Your task to perform on an android device: Go to ESPN.com Image 0: 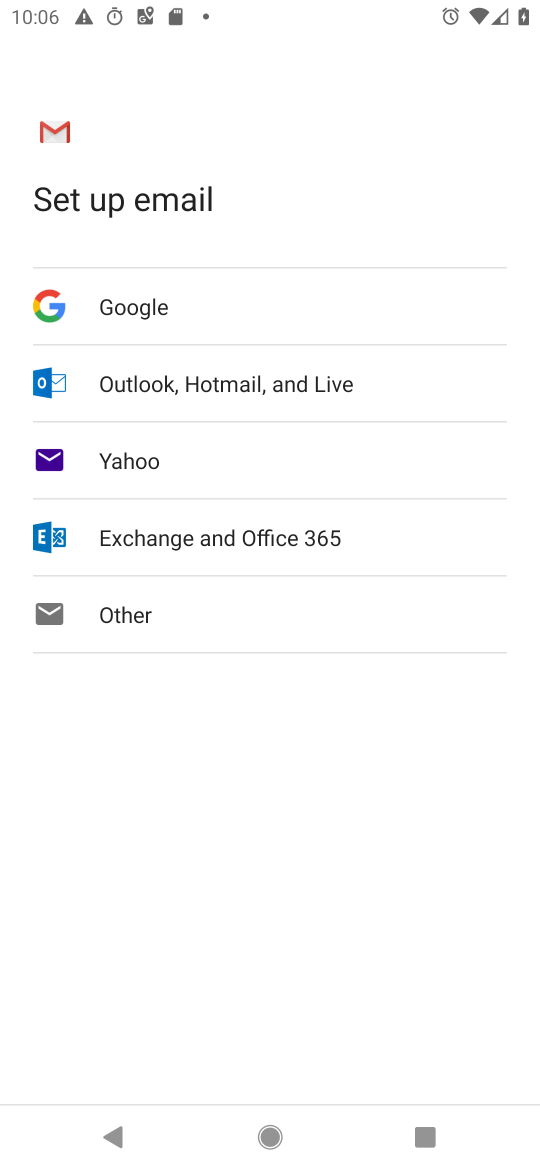
Step 0: press home button
Your task to perform on an android device: Go to ESPN.com Image 1: 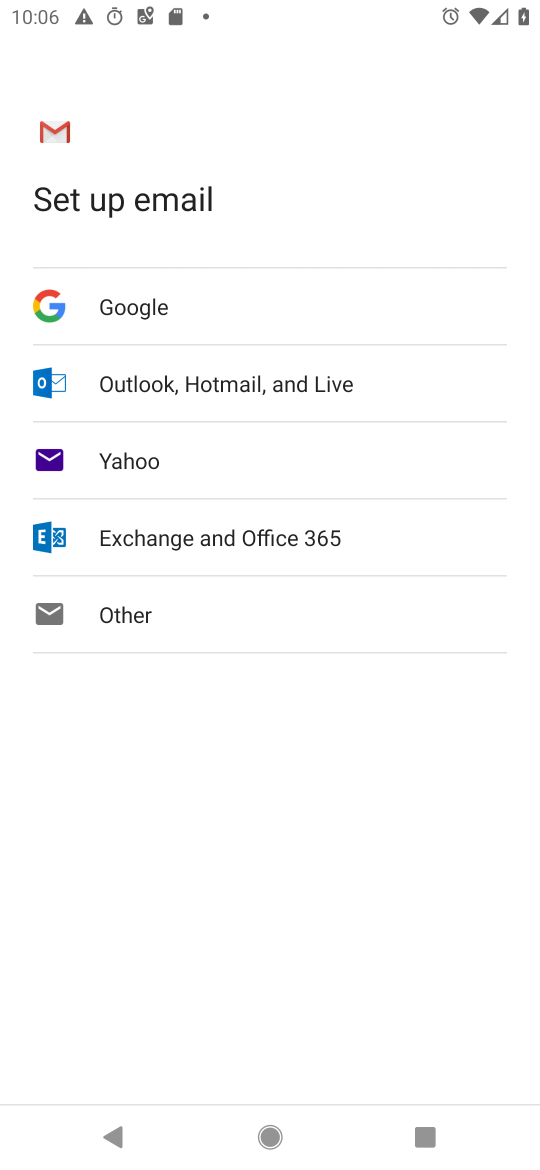
Step 1: press home button
Your task to perform on an android device: Go to ESPN.com Image 2: 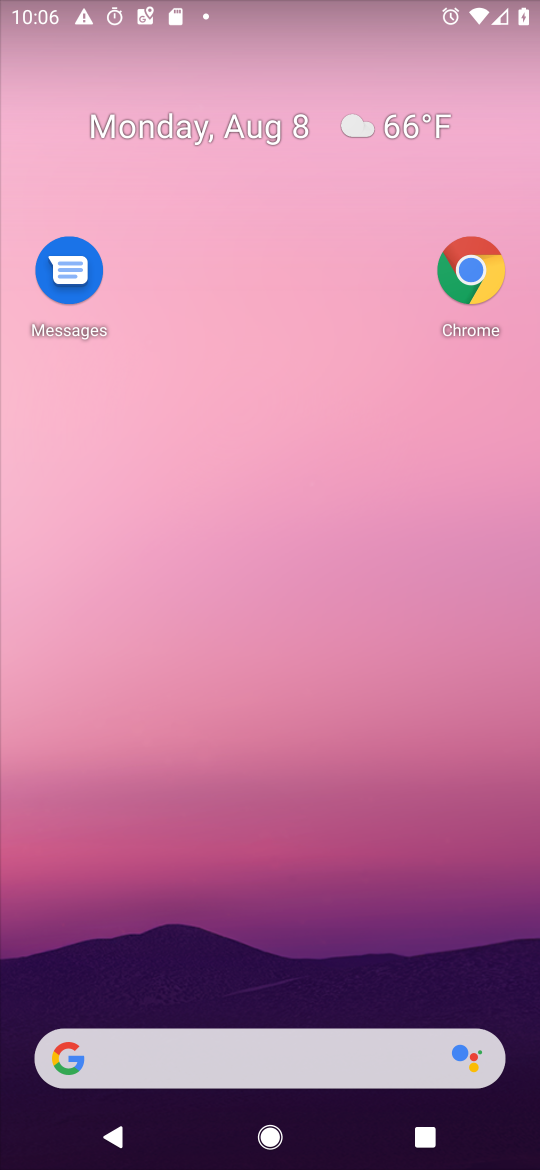
Step 2: press home button
Your task to perform on an android device: Go to ESPN.com Image 3: 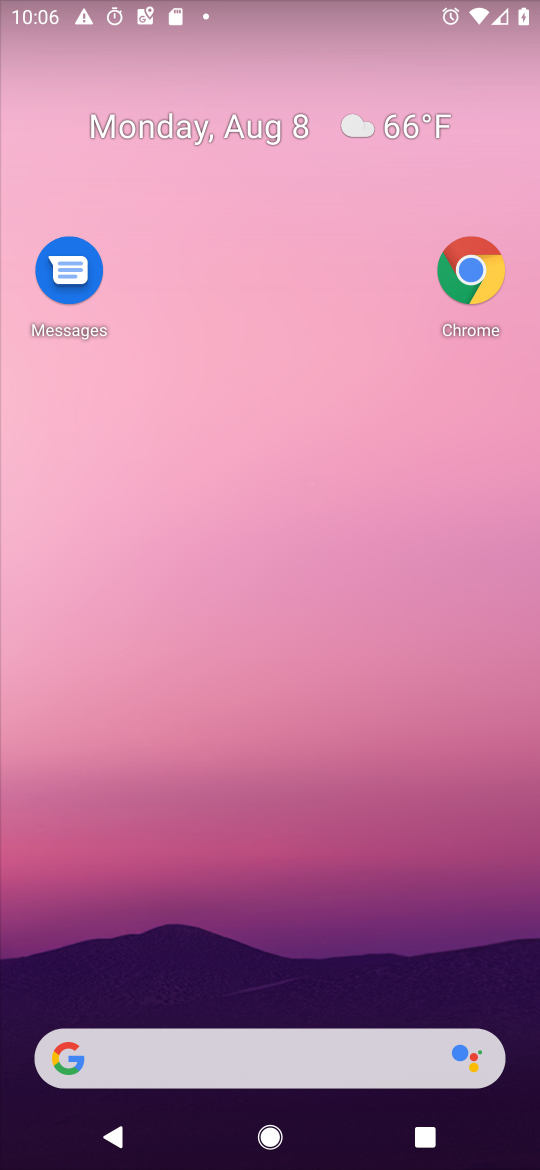
Step 3: drag from (266, 944) to (235, 55)
Your task to perform on an android device: Go to ESPN.com Image 4: 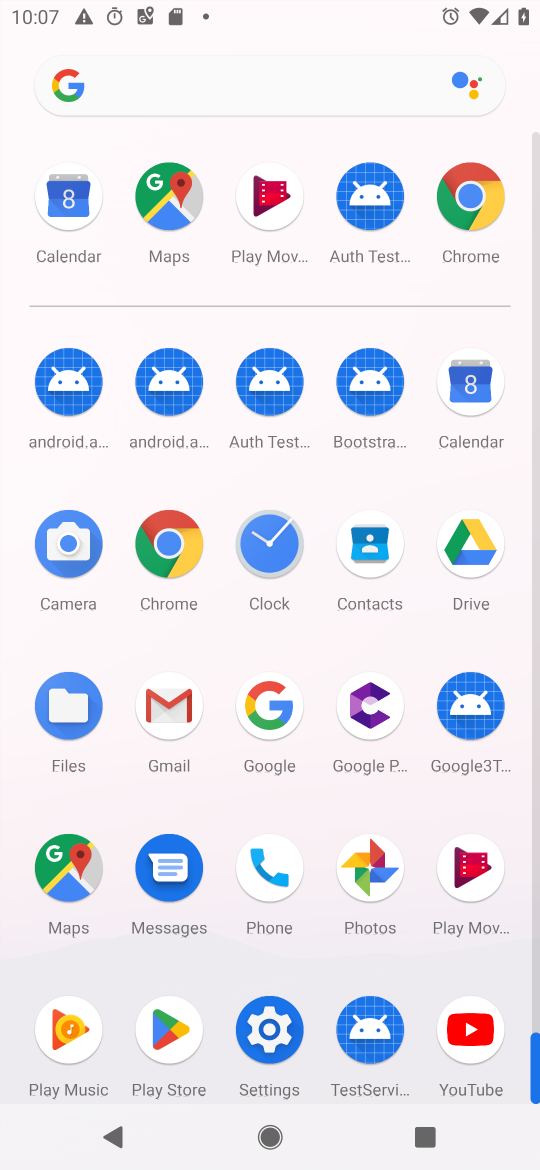
Step 4: click (155, 538)
Your task to perform on an android device: Go to ESPN.com Image 5: 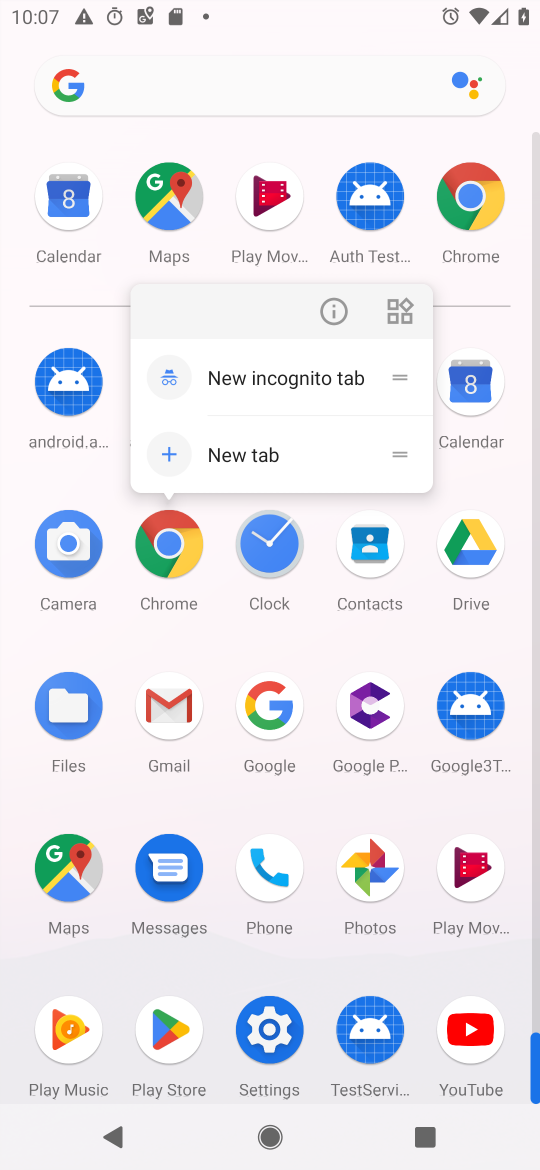
Step 5: click (339, 315)
Your task to perform on an android device: Go to ESPN.com Image 6: 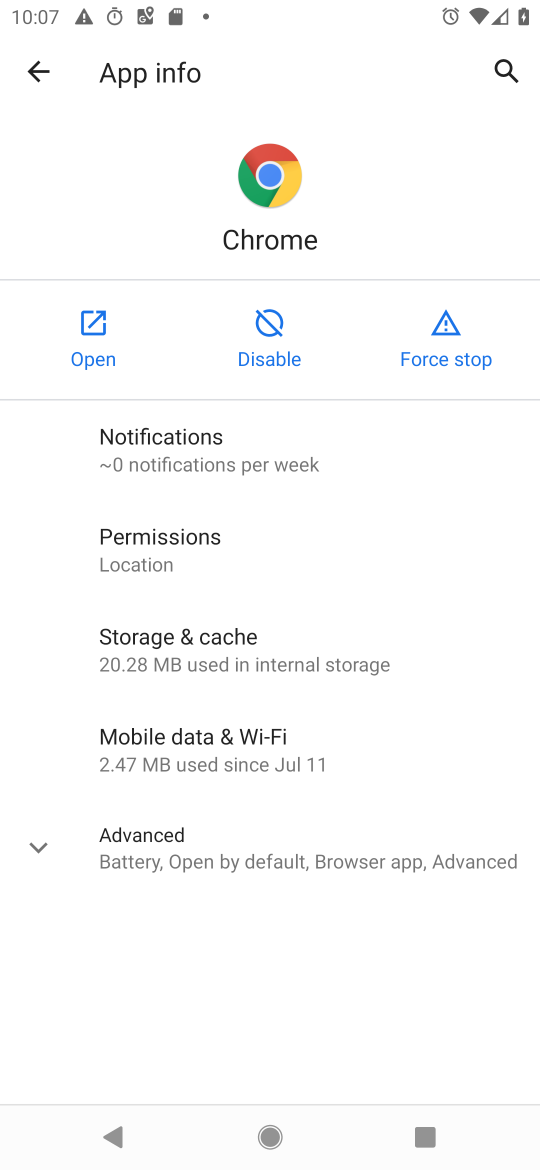
Step 6: click (107, 307)
Your task to perform on an android device: Go to ESPN.com Image 7: 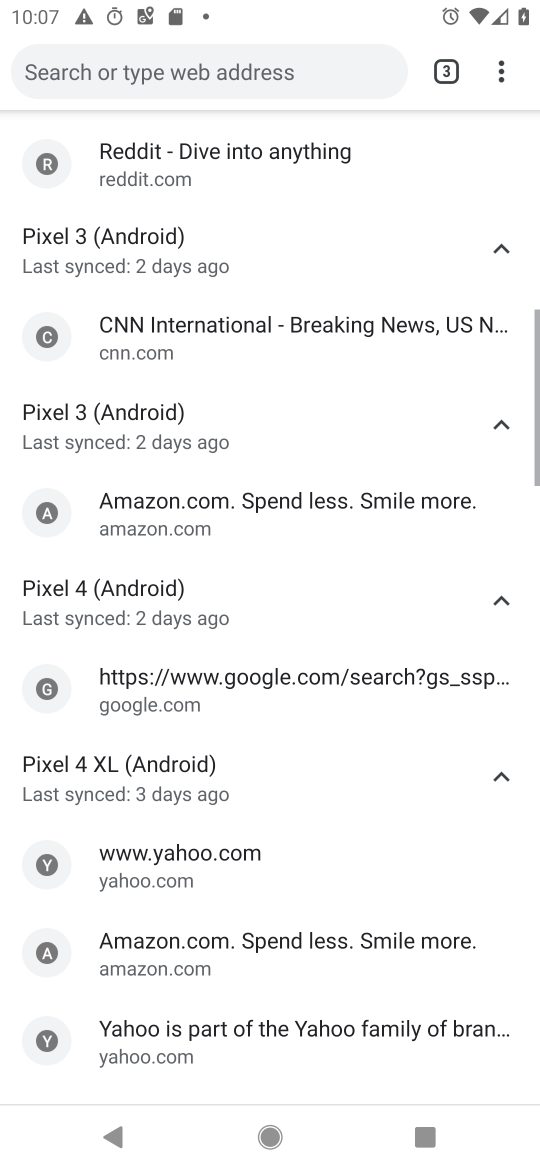
Step 7: click (256, 79)
Your task to perform on an android device: Go to ESPN.com Image 8: 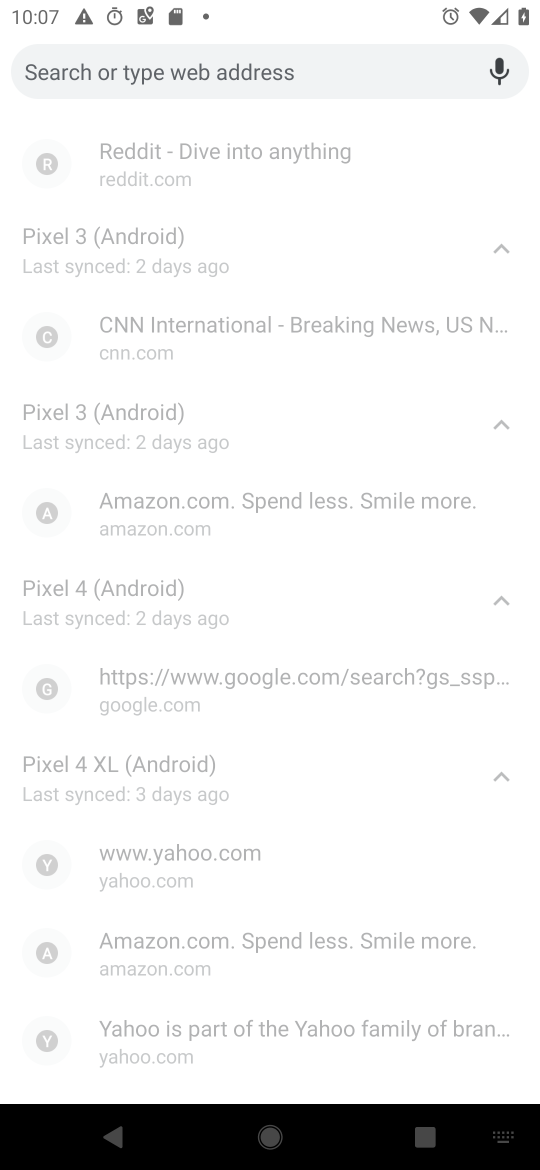
Step 8: type "ESPN.com"
Your task to perform on an android device: Go to ESPN.com Image 9: 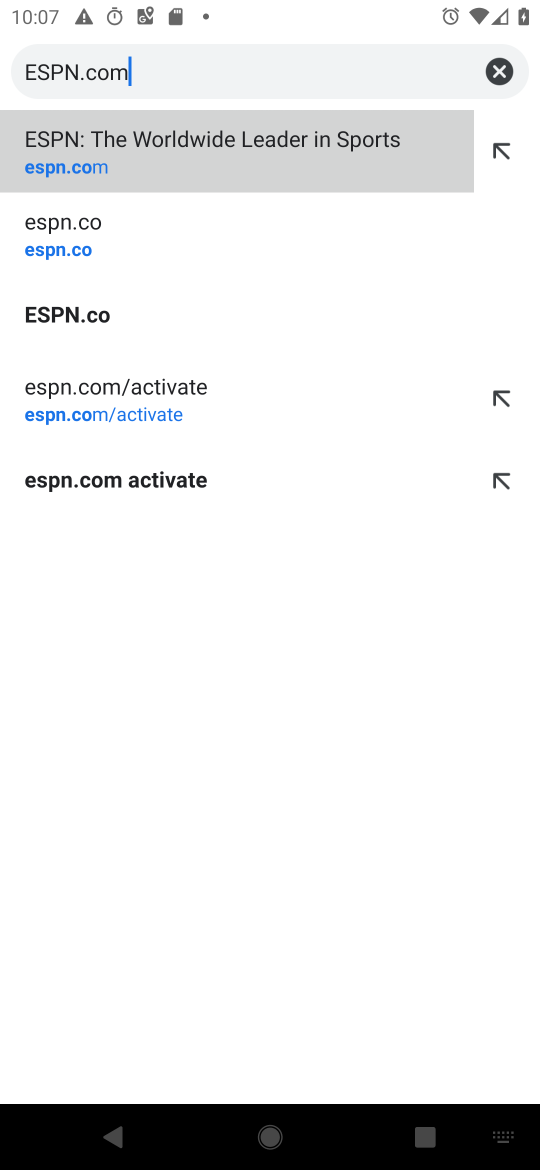
Step 9: type ""
Your task to perform on an android device: Go to ESPN.com Image 10: 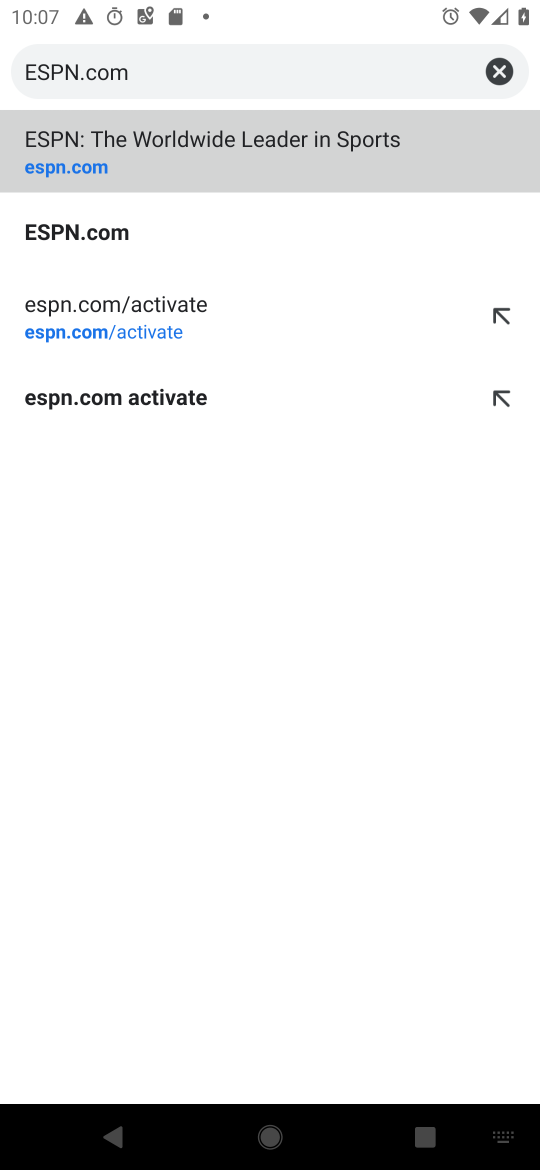
Step 10: click (71, 149)
Your task to perform on an android device: Go to ESPN.com Image 11: 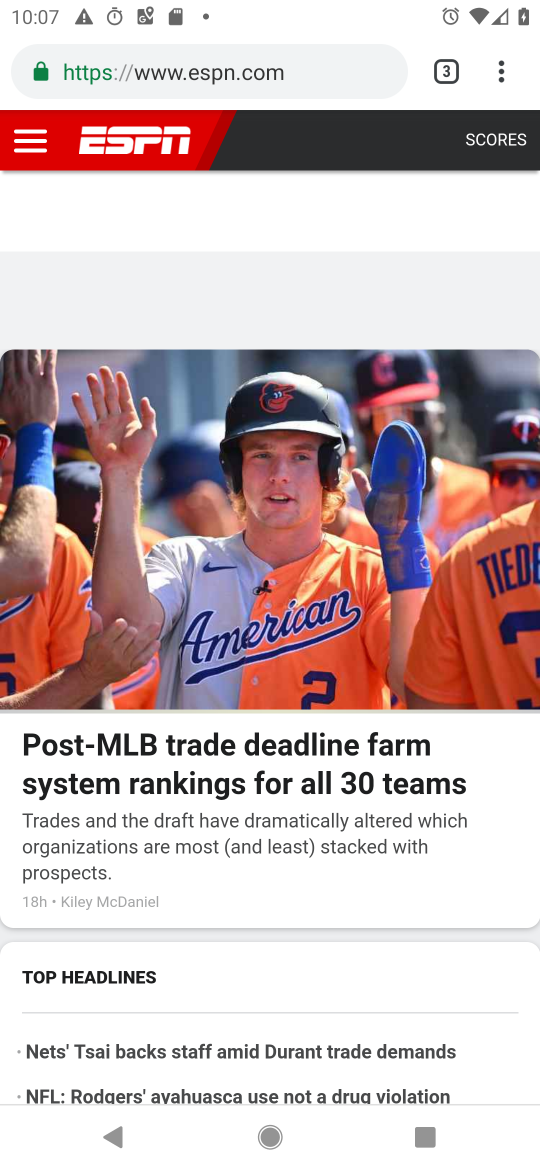
Step 11: task complete